Your task to perform on an android device: See recent photos Image 0: 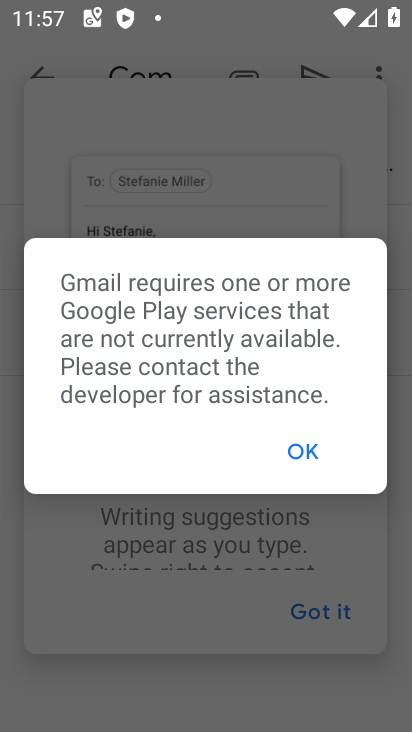
Step 0: press home button
Your task to perform on an android device: See recent photos Image 1: 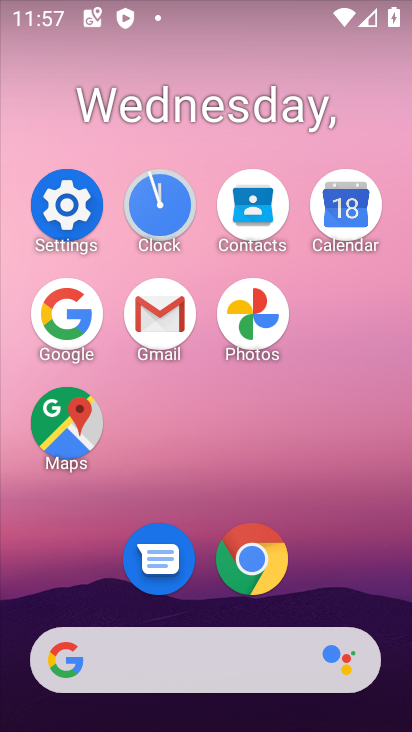
Step 1: click (261, 316)
Your task to perform on an android device: See recent photos Image 2: 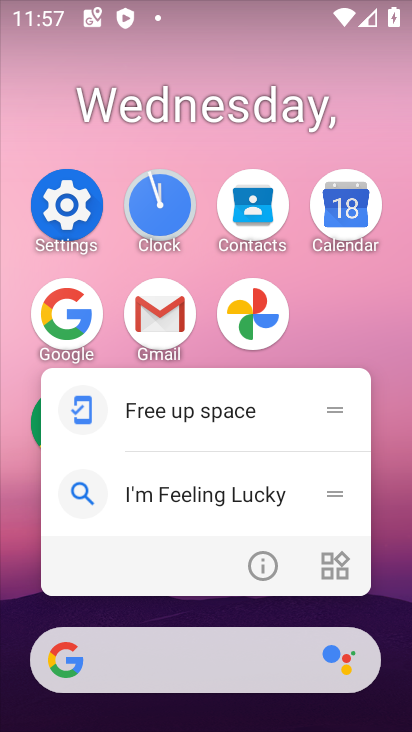
Step 2: click (261, 316)
Your task to perform on an android device: See recent photos Image 3: 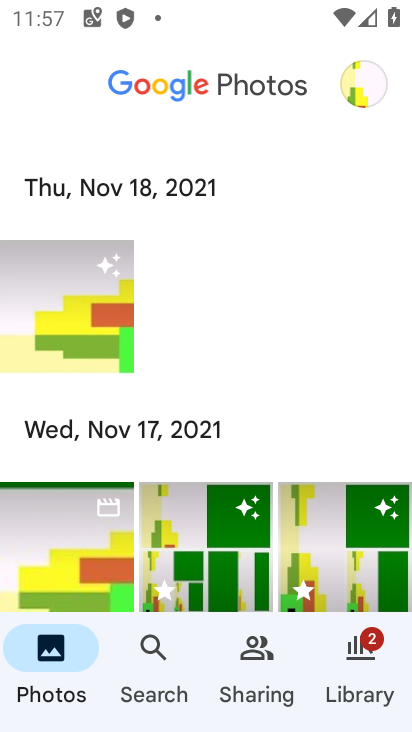
Step 3: task complete